Your task to perform on an android device: turn off priority inbox in the gmail app Image 0: 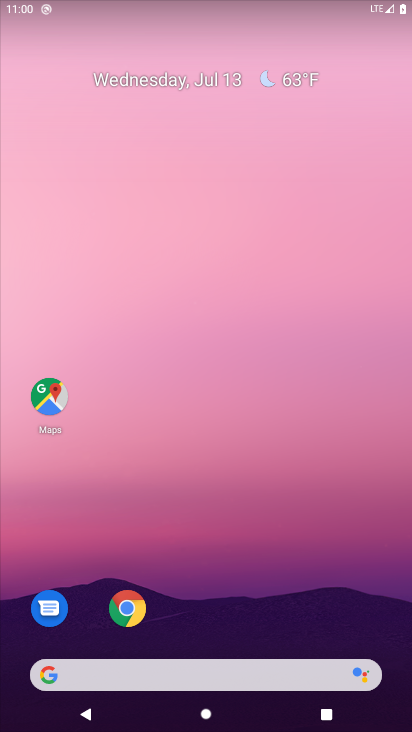
Step 0: drag from (314, 548) to (291, 2)
Your task to perform on an android device: turn off priority inbox in the gmail app Image 1: 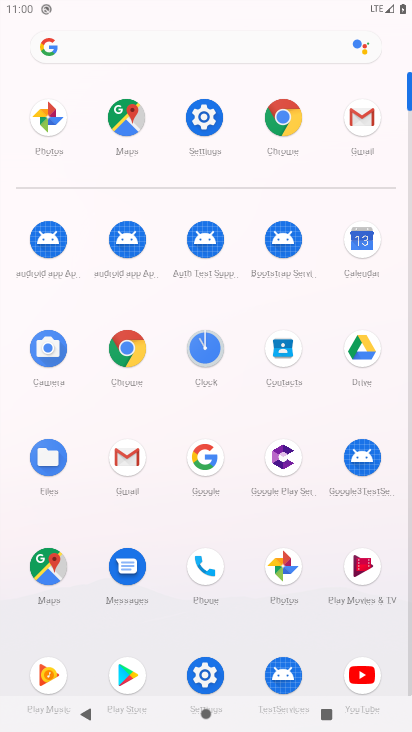
Step 1: click (128, 447)
Your task to perform on an android device: turn off priority inbox in the gmail app Image 2: 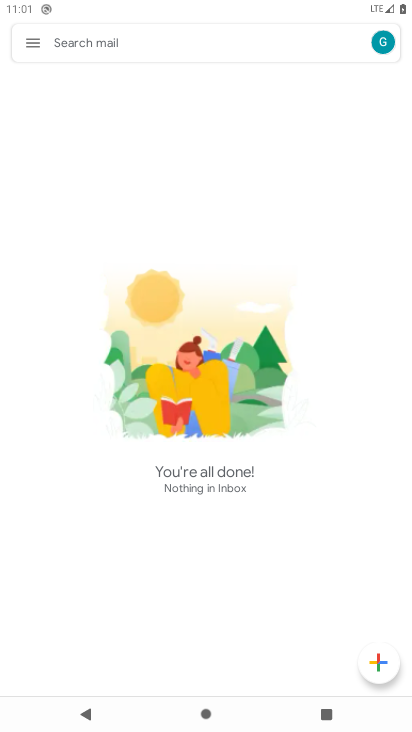
Step 2: click (35, 41)
Your task to perform on an android device: turn off priority inbox in the gmail app Image 3: 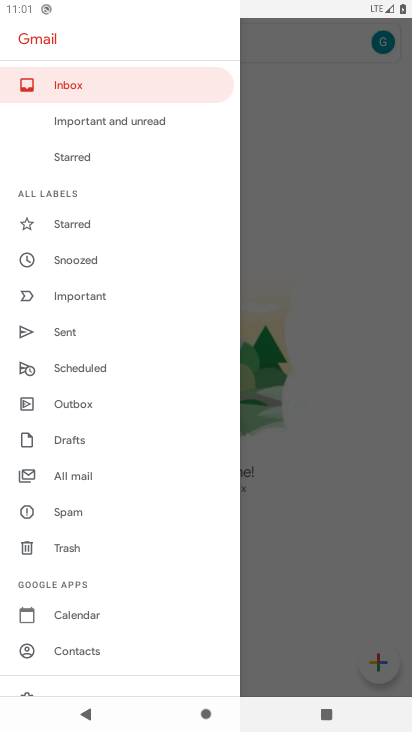
Step 3: drag from (106, 638) to (134, 338)
Your task to perform on an android device: turn off priority inbox in the gmail app Image 4: 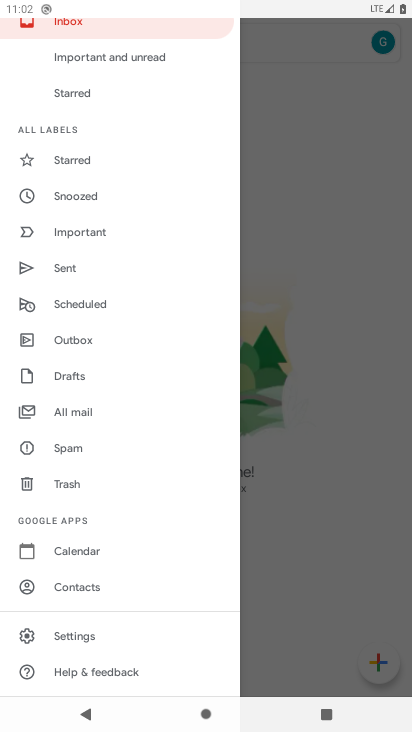
Step 4: click (70, 637)
Your task to perform on an android device: turn off priority inbox in the gmail app Image 5: 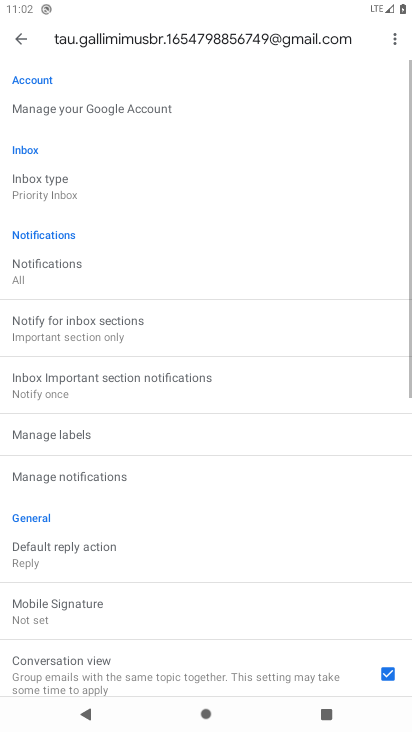
Step 5: click (81, 188)
Your task to perform on an android device: turn off priority inbox in the gmail app Image 6: 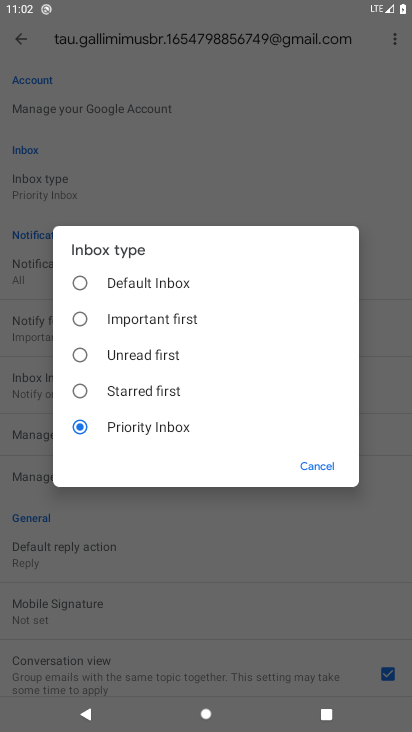
Step 6: click (134, 278)
Your task to perform on an android device: turn off priority inbox in the gmail app Image 7: 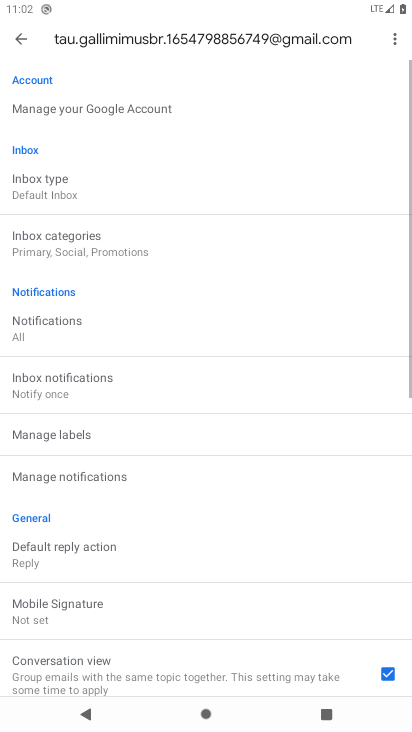
Step 7: task complete